Your task to perform on an android device: Go to Maps Image 0: 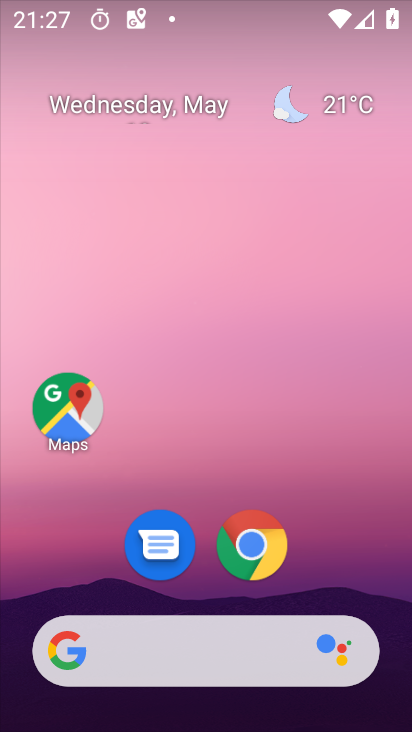
Step 0: drag from (310, 585) to (298, 1)
Your task to perform on an android device: Go to Maps Image 1: 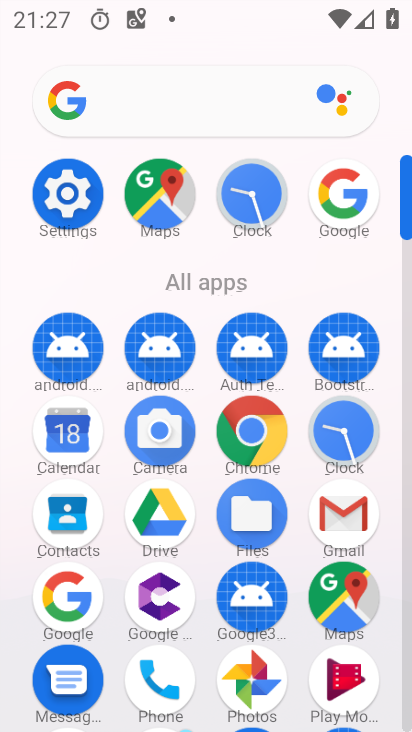
Step 1: click (334, 584)
Your task to perform on an android device: Go to Maps Image 2: 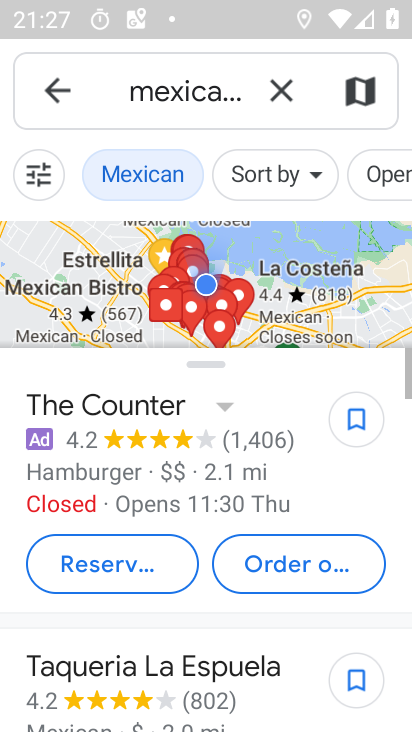
Step 2: click (36, 91)
Your task to perform on an android device: Go to Maps Image 3: 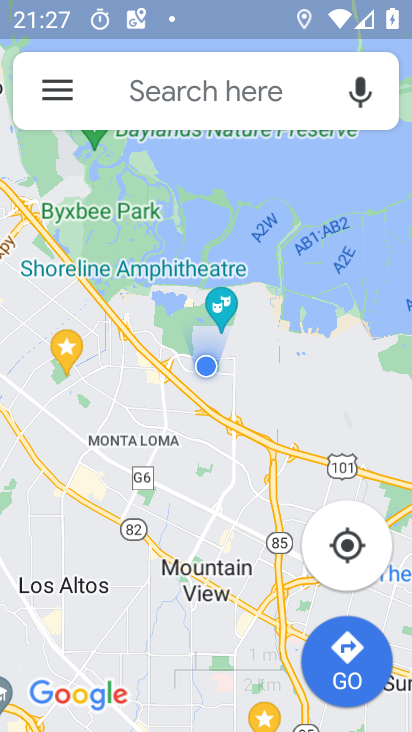
Step 3: task complete